Your task to perform on an android device: Open Google Maps and go to "Timeline" Image 0: 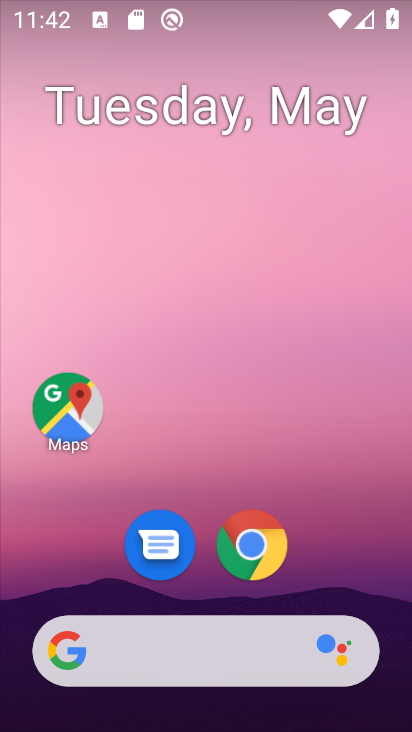
Step 0: click (331, 243)
Your task to perform on an android device: Open Google Maps and go to "Timeline" Image 1: 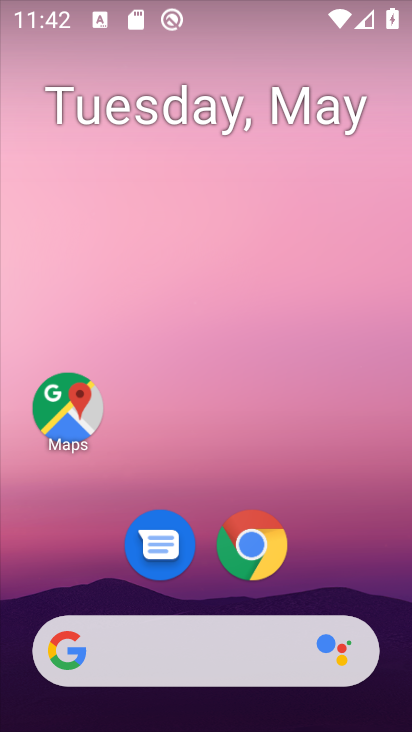
Step 1: drag from (202, 603) to (206, 203)
Your task to perform on an android device: Open Google Maps and go to "Timeline" Image 2: 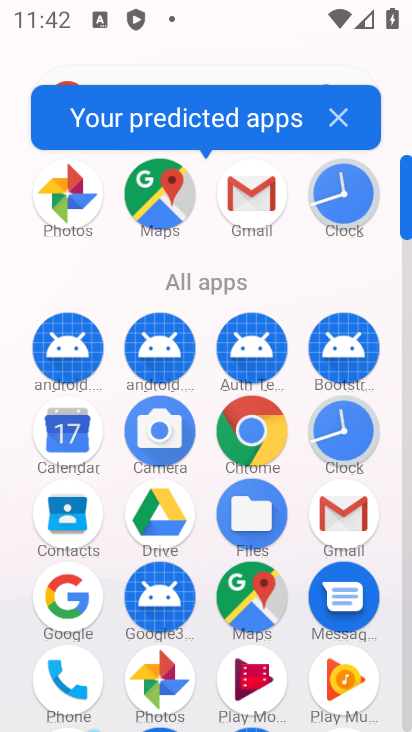
Step 2: click (255, 596)
Your task to perform on an android device: Open Google Maps and go to "Timeline" Image 3: 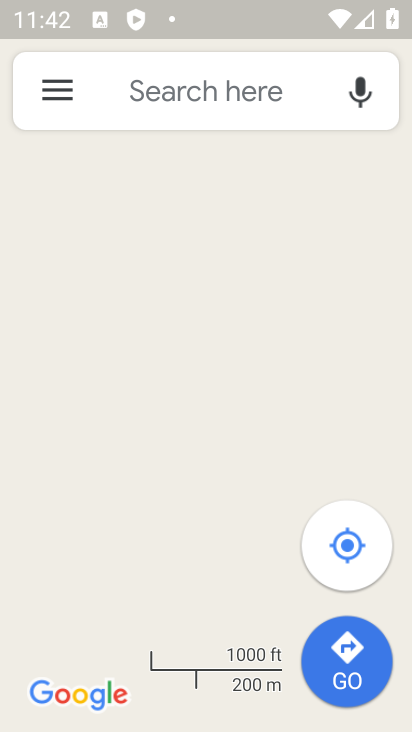
Step 3: click (46, 96)
Your task to perform on an android device: Open Google Maps and go to "Timeline" Image 4: 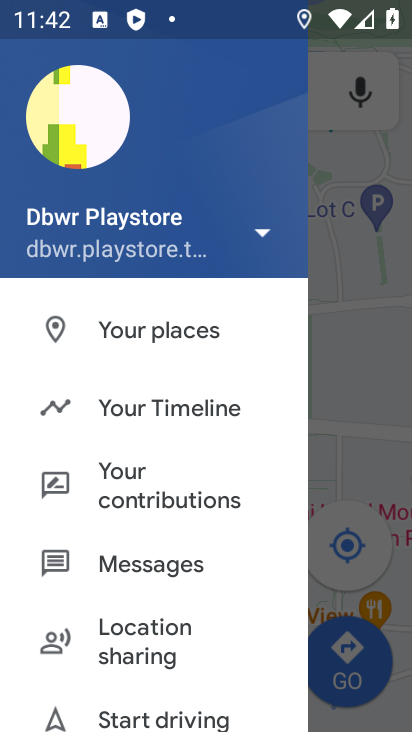
Step 4: click (164, 411)
Your task to perform on an android device: Open Google Maps and go to "Timeline" Image 5: 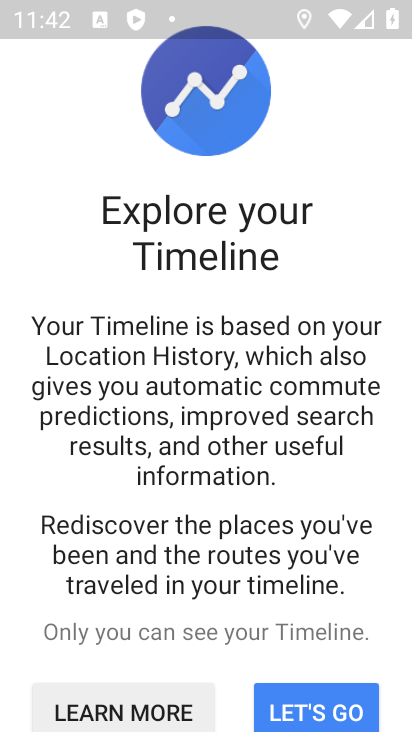
Step 5: task complete